Your task to perform on an android device: Go to location settings Image 0: 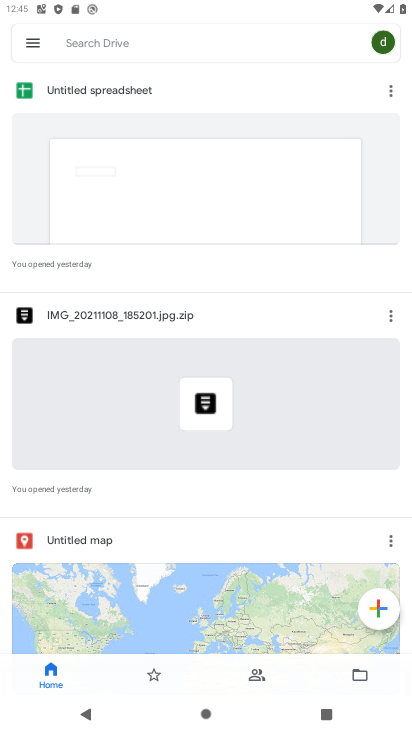
Step 0: press home button
Your task to perform on an android device: Go to location settings Image 1: 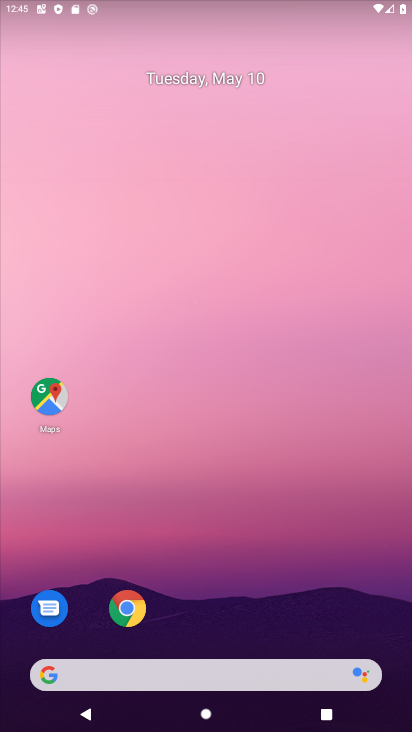
Step 1: drag from (343, 609) to (341, 3)
Your task to perform on an android device: Go to location settings Image 2: 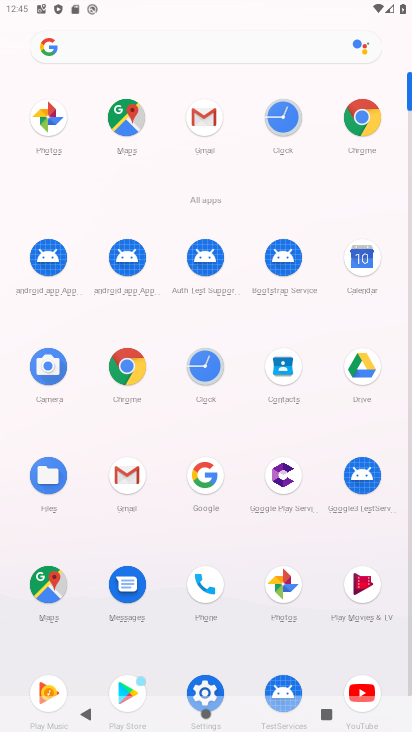
Step 2: click (213, 686)
Your task to perform on an android device: Go to location settings Image 3: 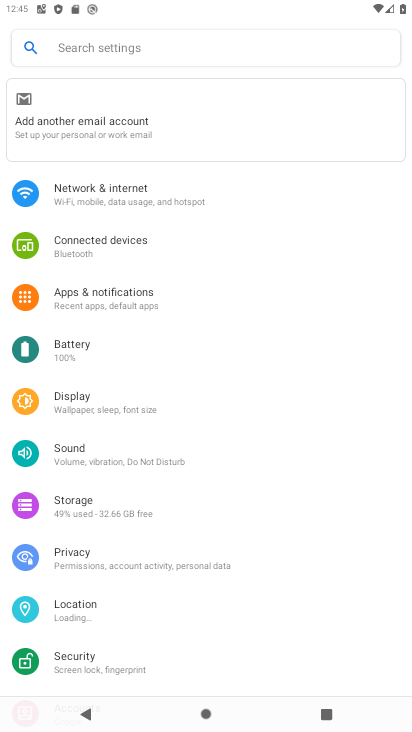
Step 3: drag from (195, 625) to (216, 302)
Your task to perform on an android device: Go to location settings Image 4: 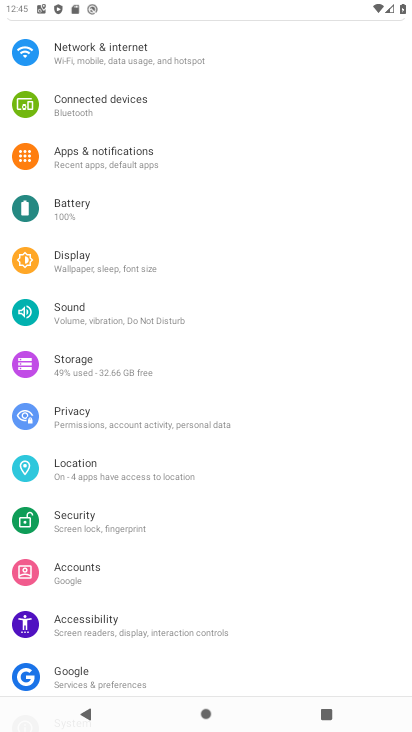
Step 4: click (101, 472)
Your task to perform on an android device: Go to location settings Image 5: 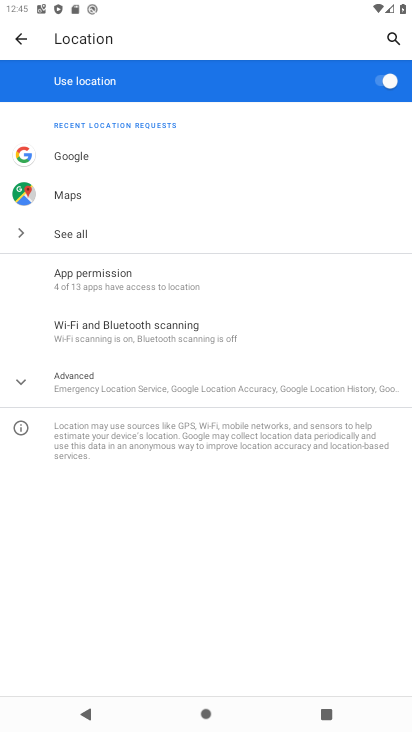
Step 5: click (108, 386)
Your task to perform on an android device: Go to location settings Image 6: 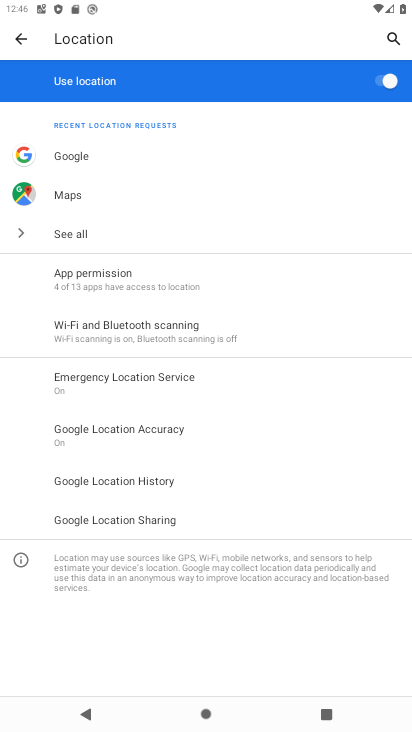
Step 6: task complete